Your task to perform on an android device: open device folders in google photos Image 0: 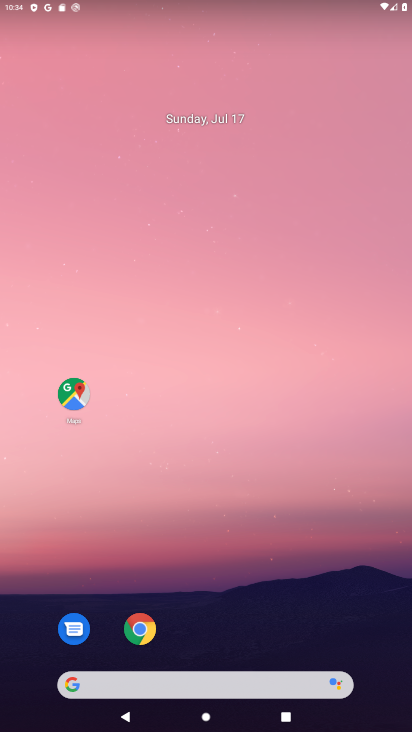
Step 0: click (184, 154)
Your task to perform on an android device: open device folders in google photos Image 1: 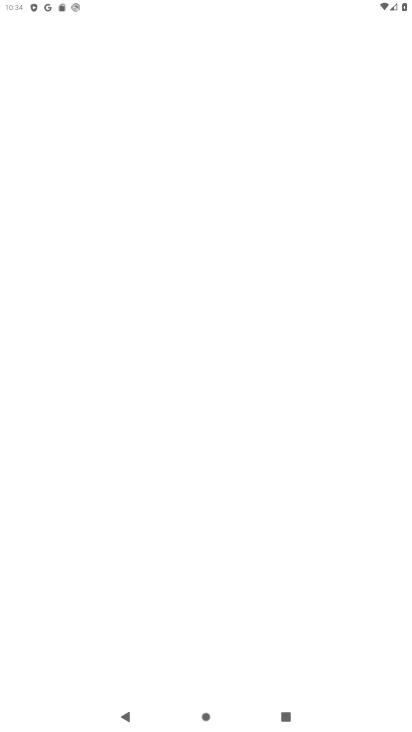
Step 1: press home button
Your task to perform on an android device: open device folders in google photos Image 2: 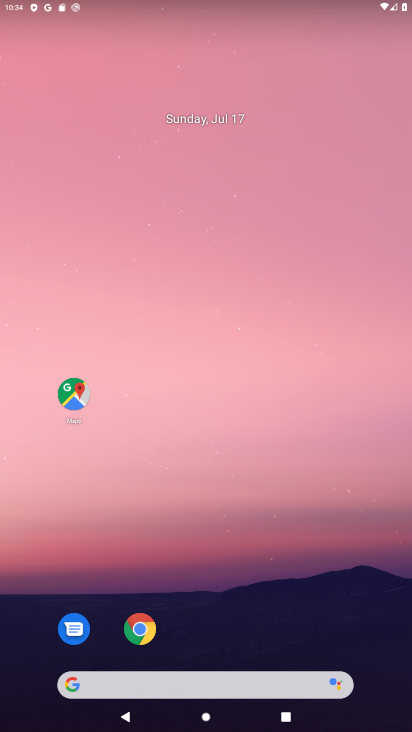
Step 2: drag from (143, 651) to (144, 271)
Your task to perform on an android device: open device folders in google photos Image 3: 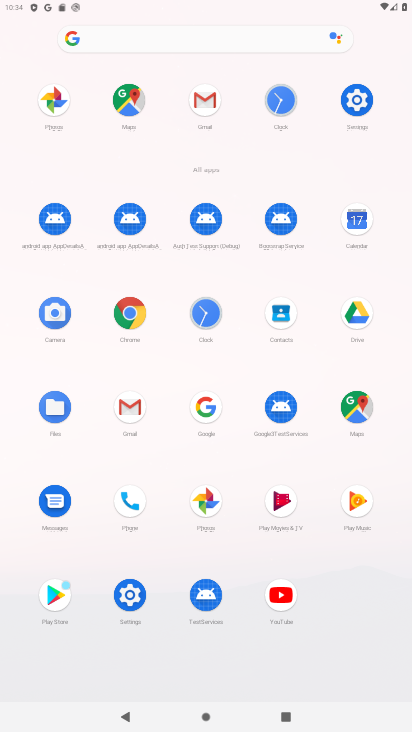
Step 3: click (44, 94)
Your task to perform on an android device: open device folders in google photos Image 4: 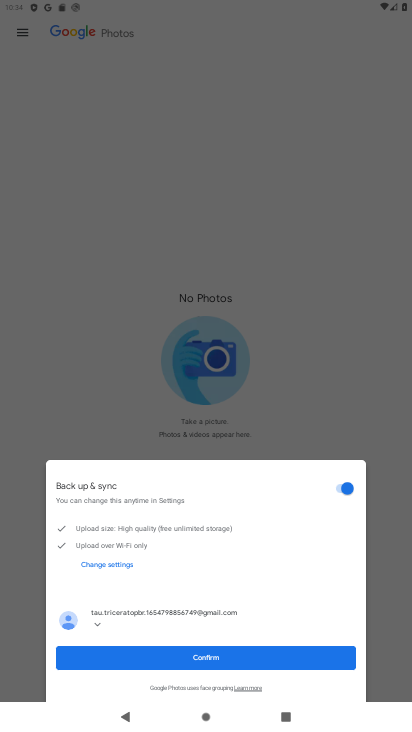
Step 4: click (236, 658)
Your task to perform on an android device: open device folders in google photos Image 5: 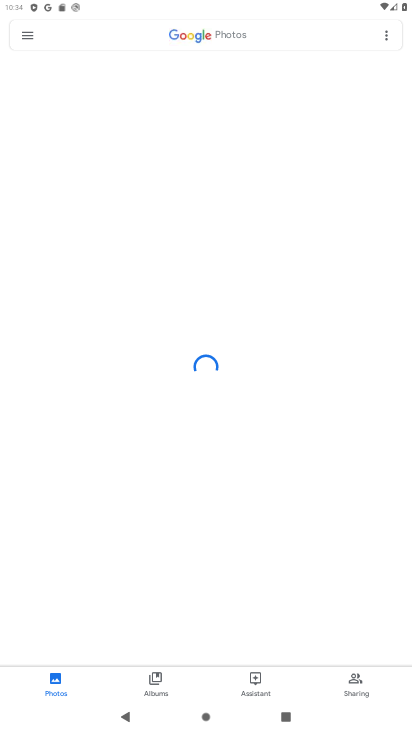
Step 5: click (24, 44)
Your task to perform on an android device: open device folders in google photos Image 6: 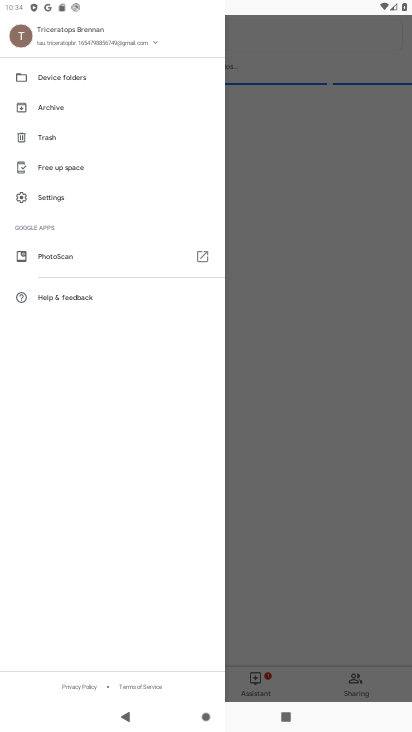
Step 6: click (45, 80)
Your task to perform on an android device: open device folders in google photos Image 7: 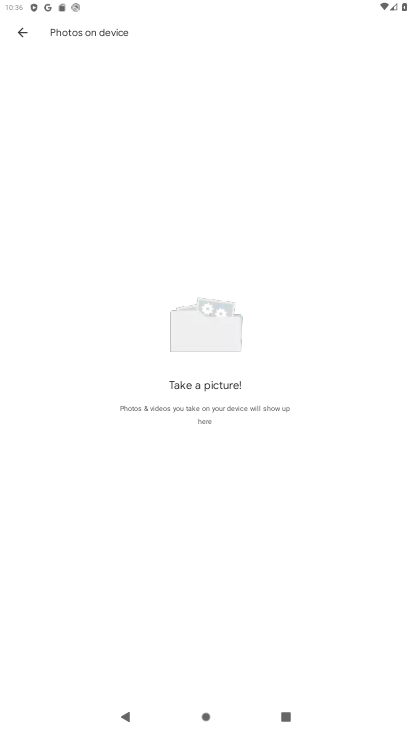
Step 7: task complete